Your task to perform on an android device: What's on my calendar for the rest of the week? Image 0: 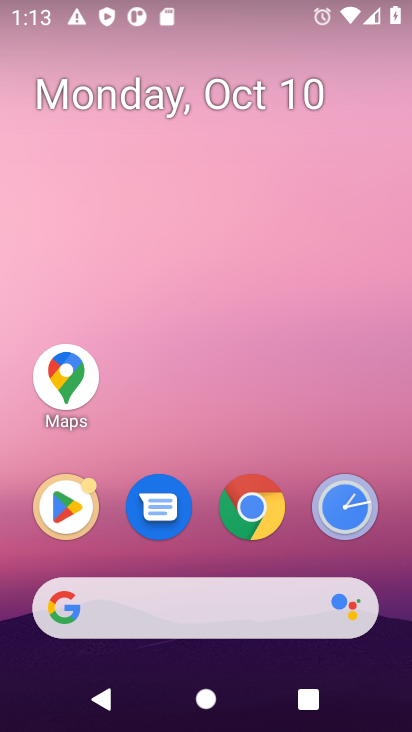
Step 0: press home button
Your task to perform on an android device: What's on my calendar for the rest of the week? Image 1: 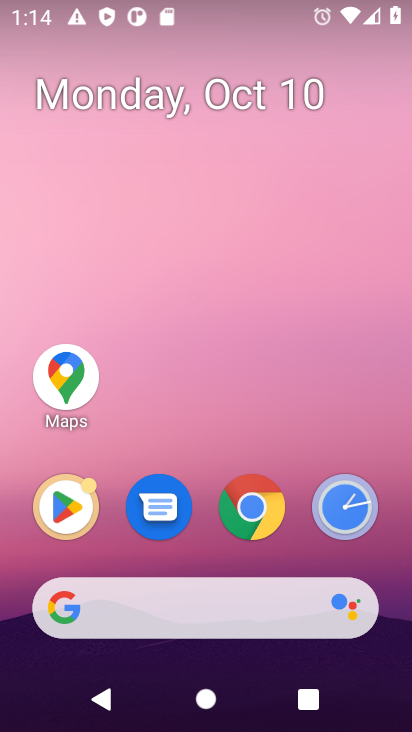
Step 1: drag from (390, 564) to (380, 212)
Your task to perform on an android device: What's on my calendar for the rest of the week? Image 2: 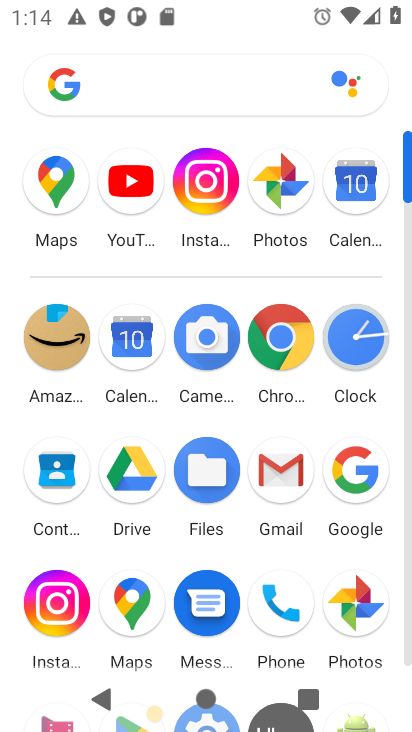
Step 2: click (349, 195)
Your task to perform on an android device: What's on my calendar for the rest of the week? Image 3: 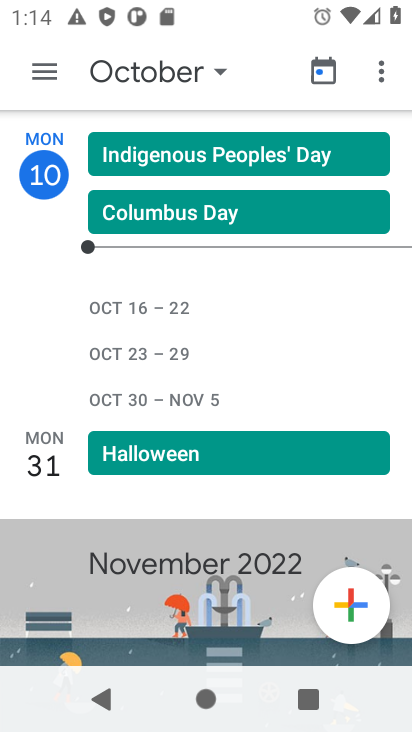
Step 3: drag from (231, 552) to (269, 281)
Your task to perform on an android device: What's on my calendar for the rest of the week? Image 4: 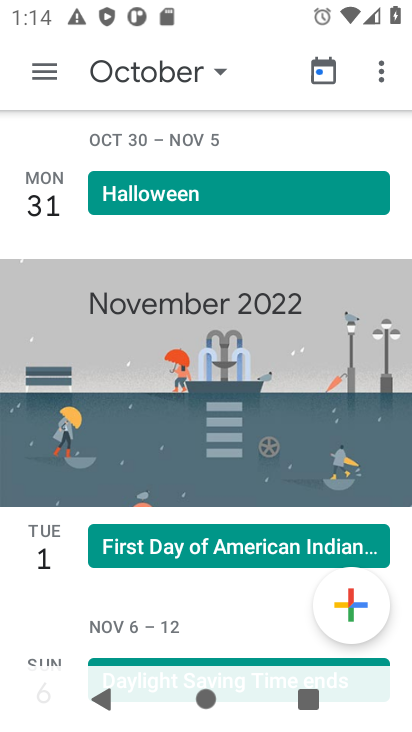
Step 4: drag from (266, 532) to (267, 244)
Your task to perform on an android device: What's on my calendar for the rest of the week? Image 5: 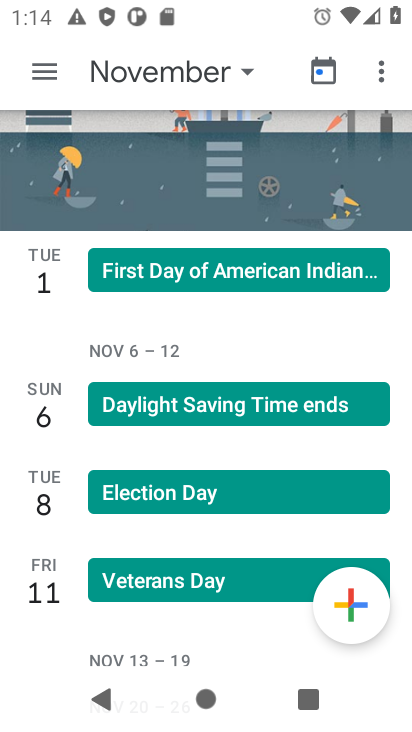
Step 5: drag from (252, 480) to (249, 274)
Your task to perform on an android device: What's on my calendar for the rest of the week? Image 6: 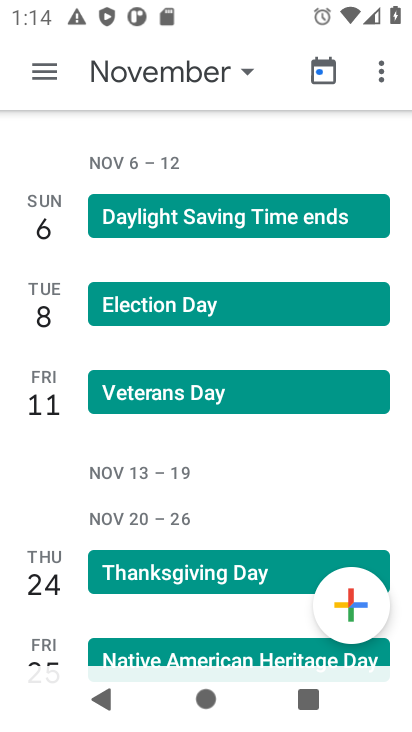
Step 6: click (48, 66)
Your task to perform on an android device: What's on my calendar for the rest of the week? Image 7: 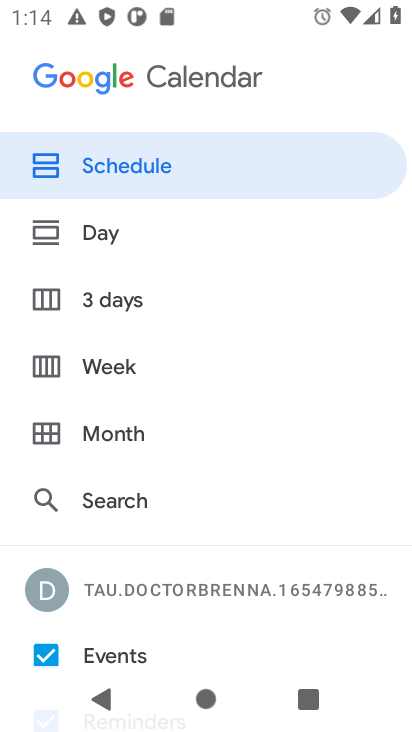
Step 7: drag from (238, 492) to (221, 195)
Your task to perform on an android device: What's on my calendar for the rest of the week? Image 8: 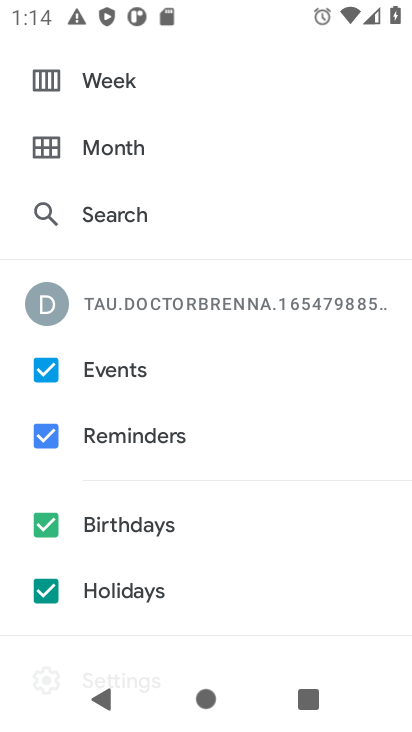
Step 8: drag from (235, 423) to (230, 260)
Your task to perform on an android device: What's on my calendar for the rest of the week? Image 9: 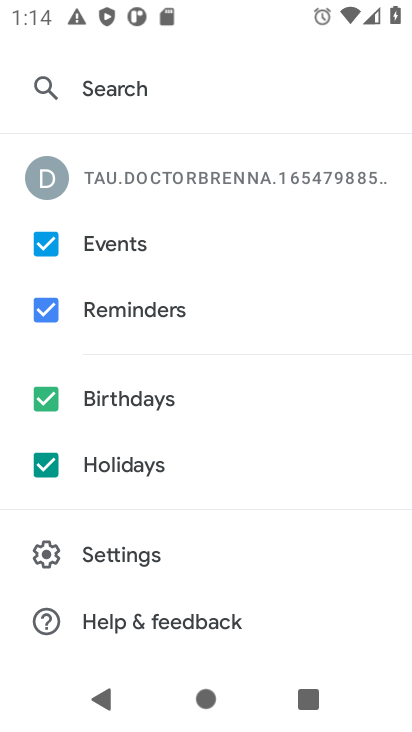
Step 9: drag from (272, 479) to (275, 253)
Your task to perform on an android device: What's on my calendar for the rest of the week? Image 10: 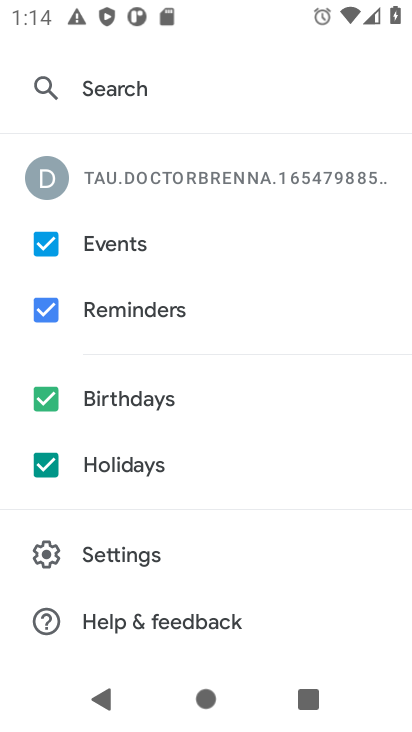
Step 10: drag from (297, 136) to (292, 491)
Your task to perform on an android device: What's on my calendar for the rest of the week? Image 11: 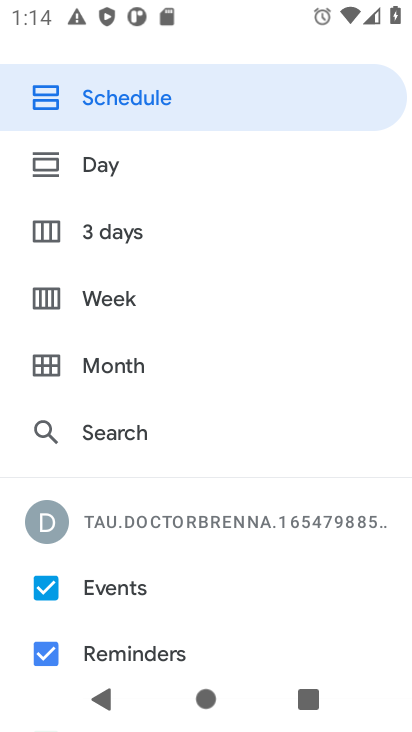
Step 11: click (110, 293)
Your task to perform on an android device: What's on my calendar for the rest of the week? Image 12: 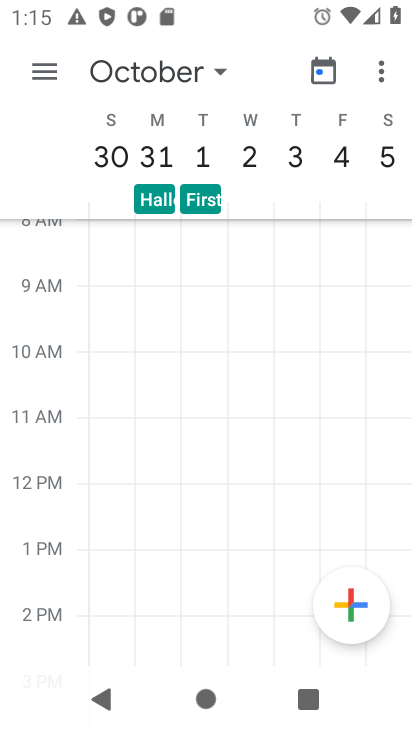
Step 12: task complete